Your task to perform on an android device: open app "Adobe Acrobat Reader: Edit PDF" (install if not already installed) Image 0: 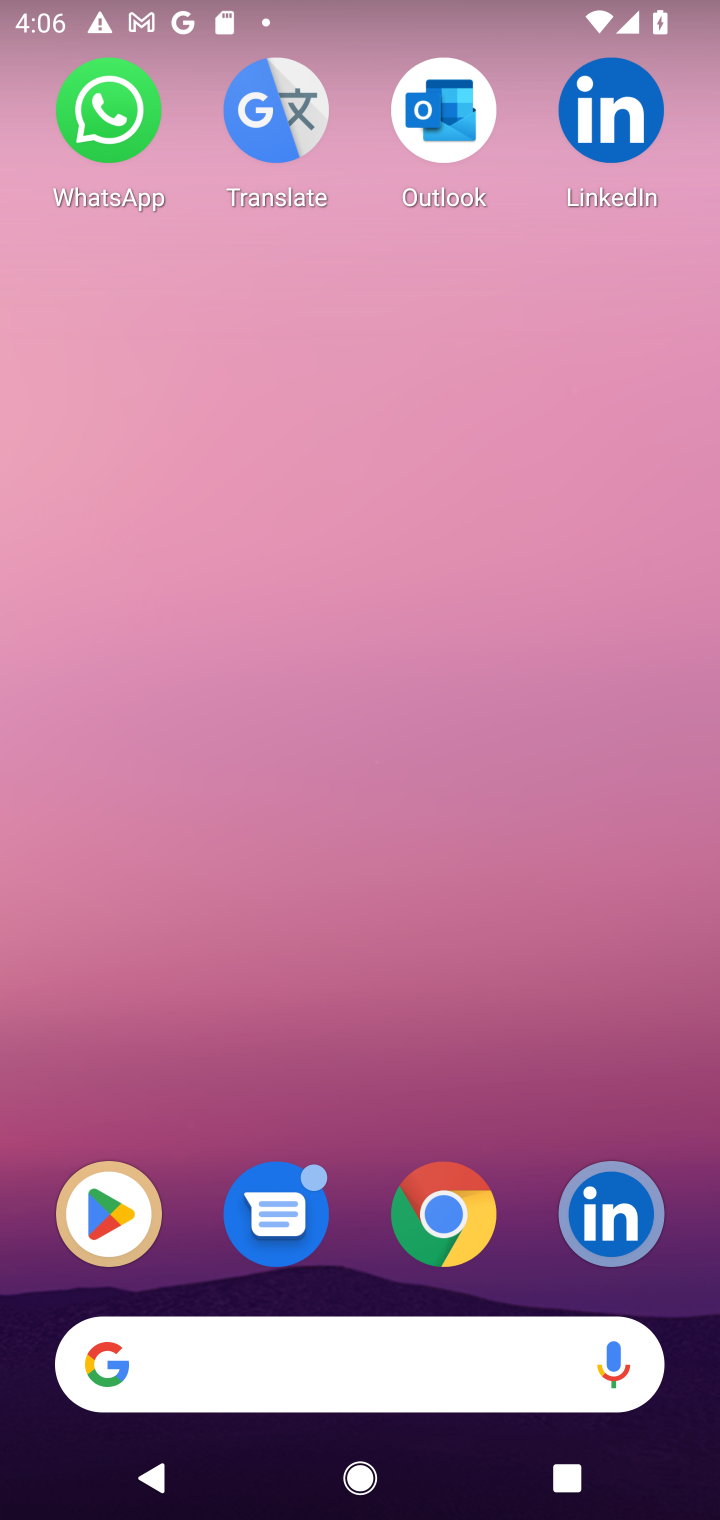
Step 0: click (140, 1224)
Your task to perform on an android device: open app "Adobe Acrobat Reader: Edit PDF" (install if not already installed) Image 1: 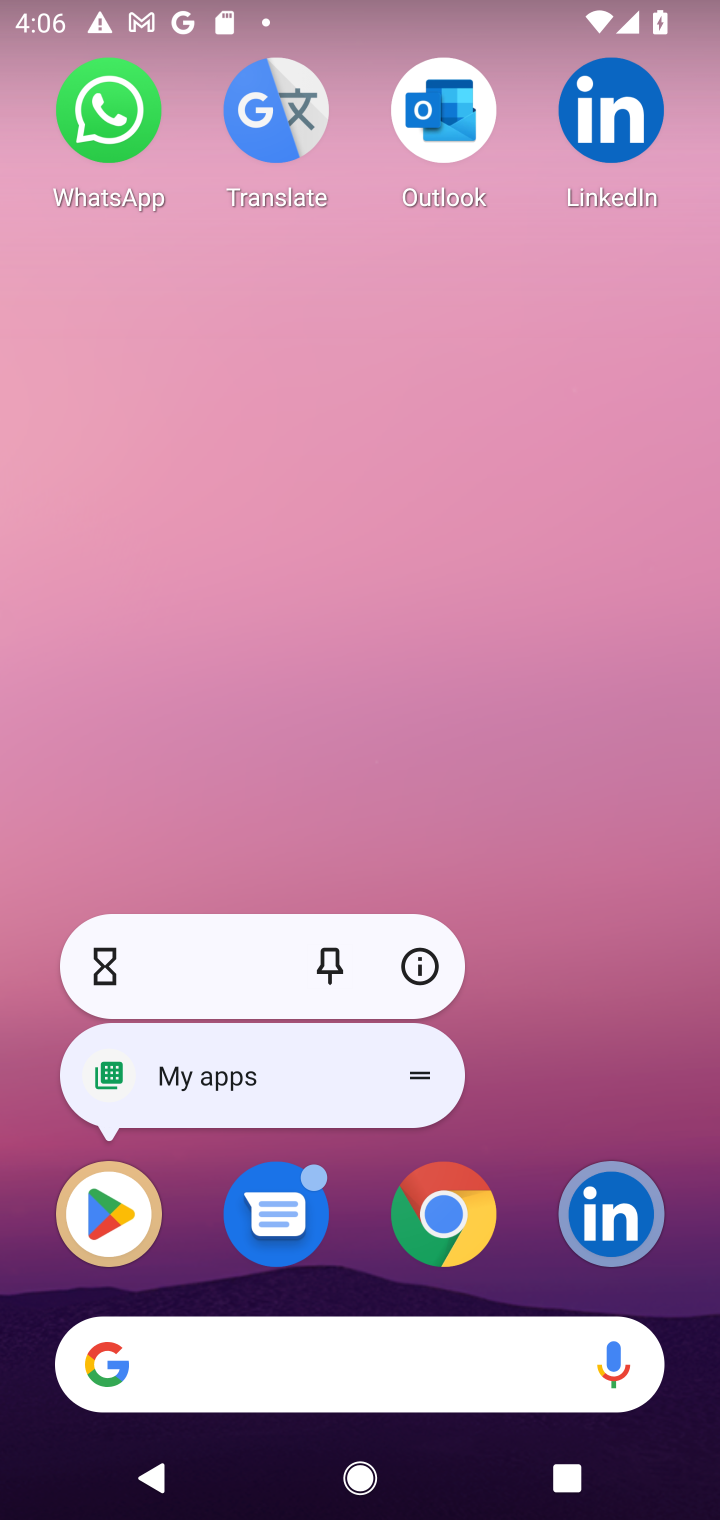
Step 1: click (136, 1222)
Your task to perform on an android device: open app "Adobe Acrobat Reader: Edit PDF" (install if not already installed) Image 2: 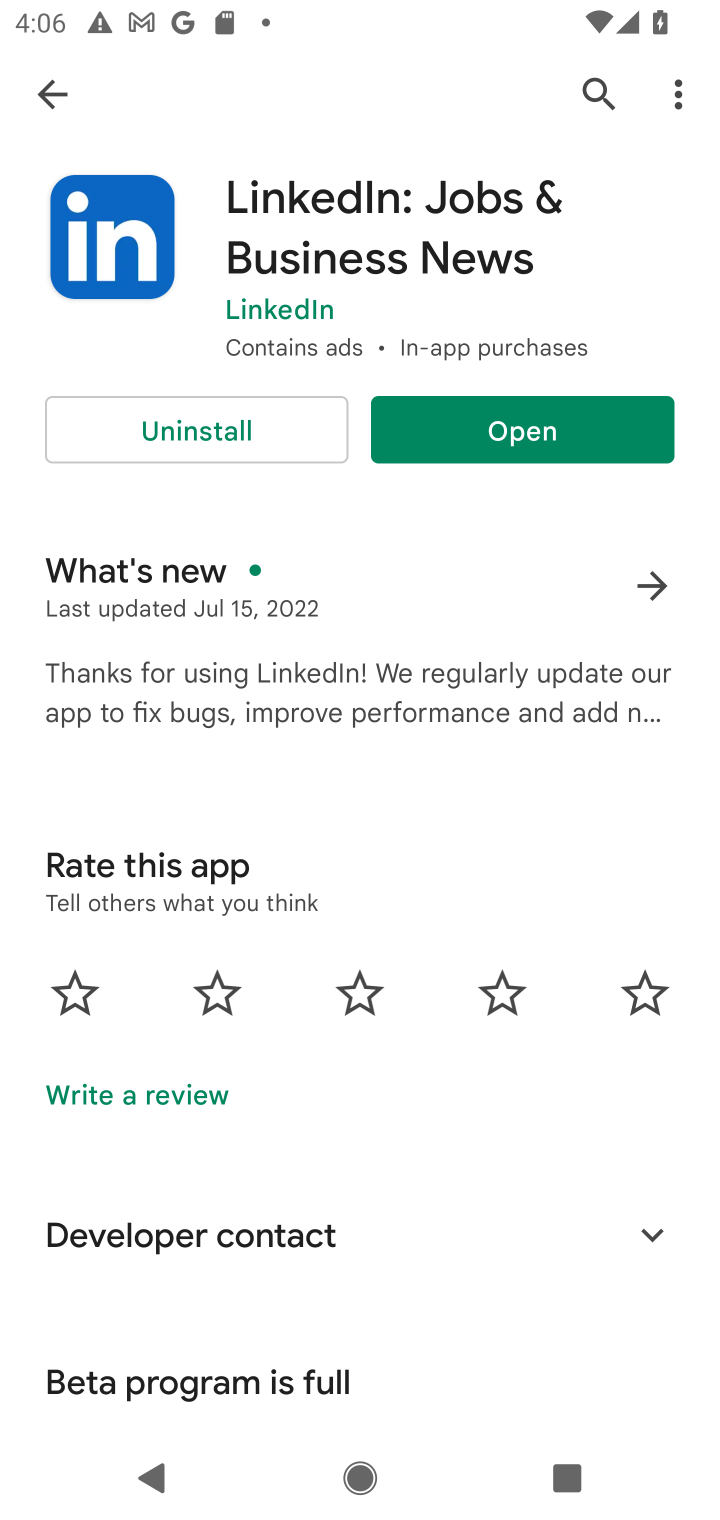
Step 2: click (60, 72)
Your task to perform on an android device: open app "Adobe Acrobat Reader: Edit PDF" (install if not already installed) Image 3: 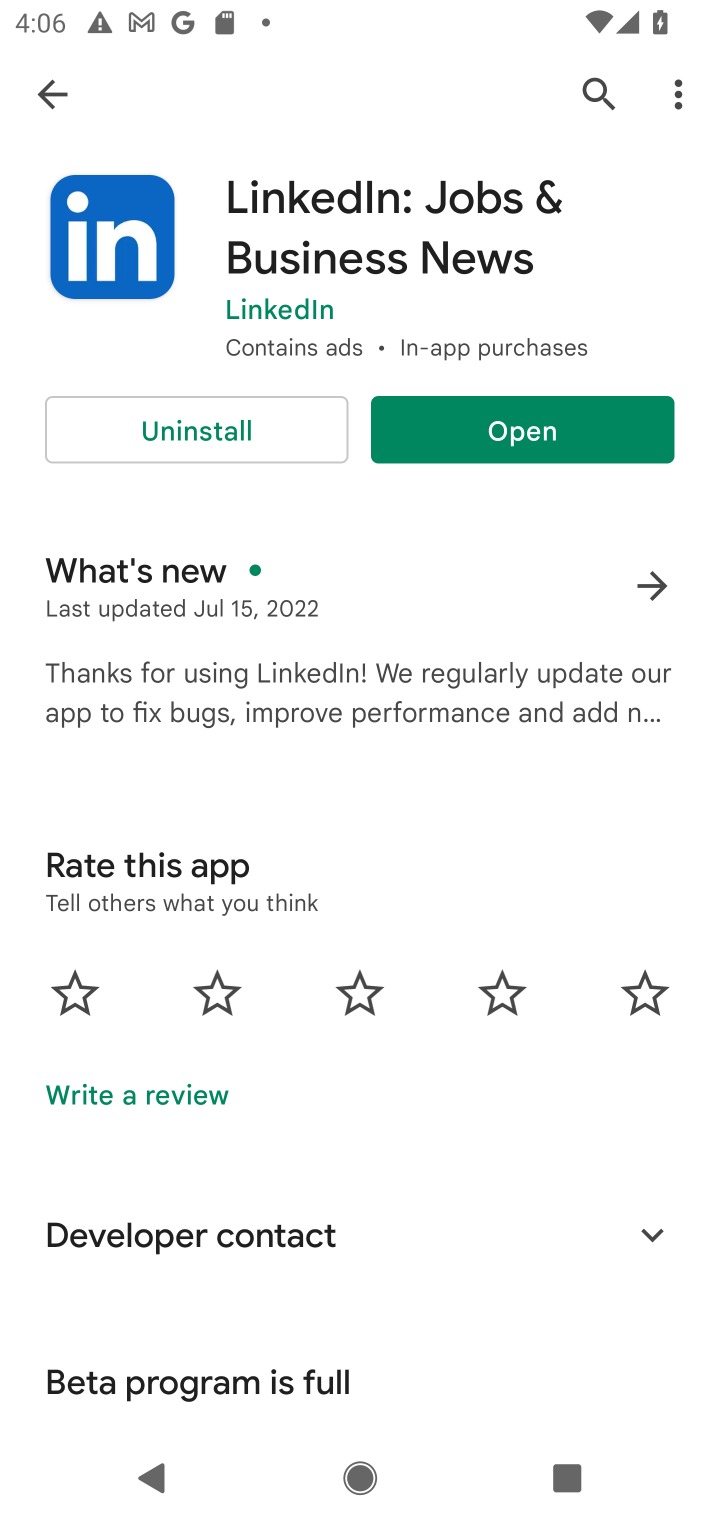
Step 3: click (40, 89)
Your task to perform on an android device: open app "Adobe Acrobat Reader: Edit PDF" (install if not already installed) Image 4: 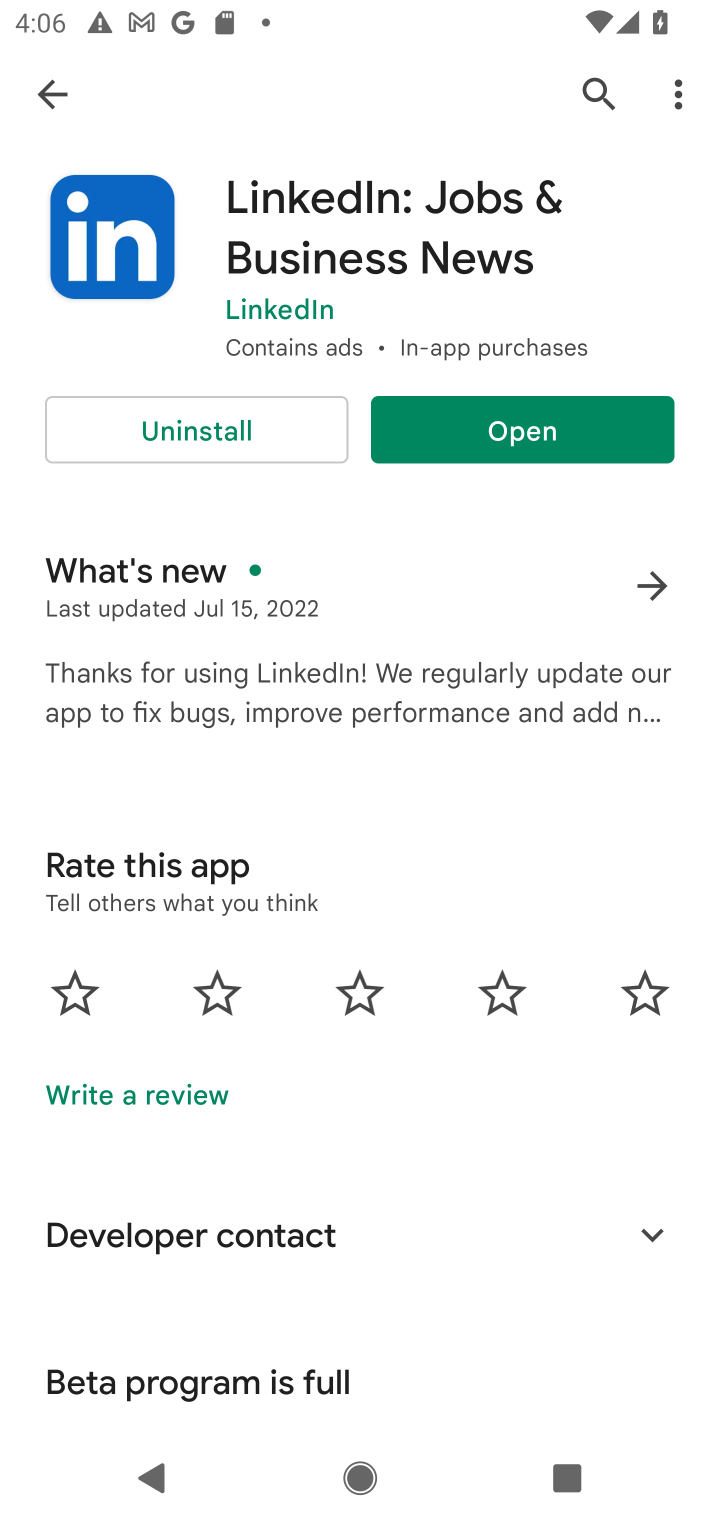
Step 4: click (28, 93)
Your task to perform on an android device: open app "Adobe Acrobat Reader: Edit PDF" (install if not already installed) Image 5: 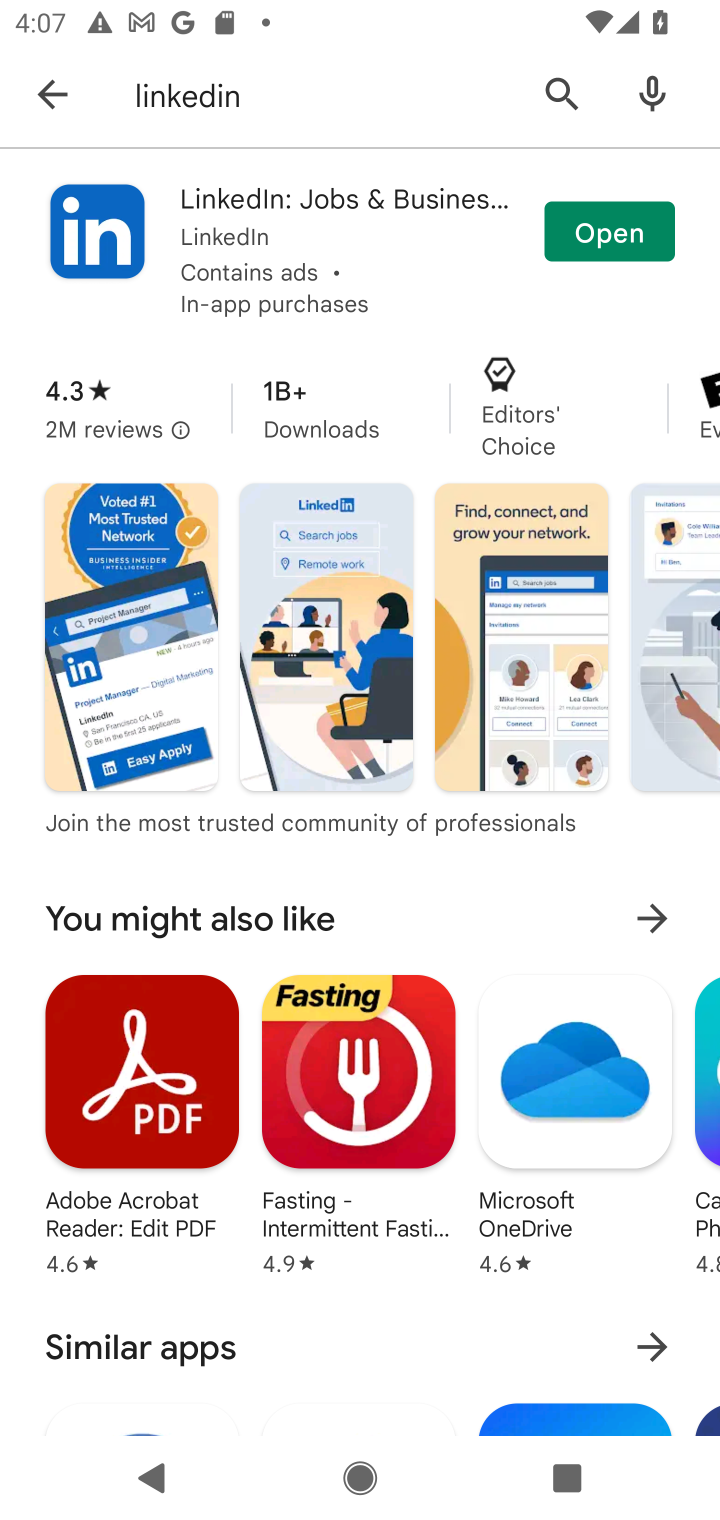
Step 5: click (232, 115)
Your task to perform on an android device: open app "Adobe Acrobat Reader: Edit PDF" (install if not already installed) Image 6: 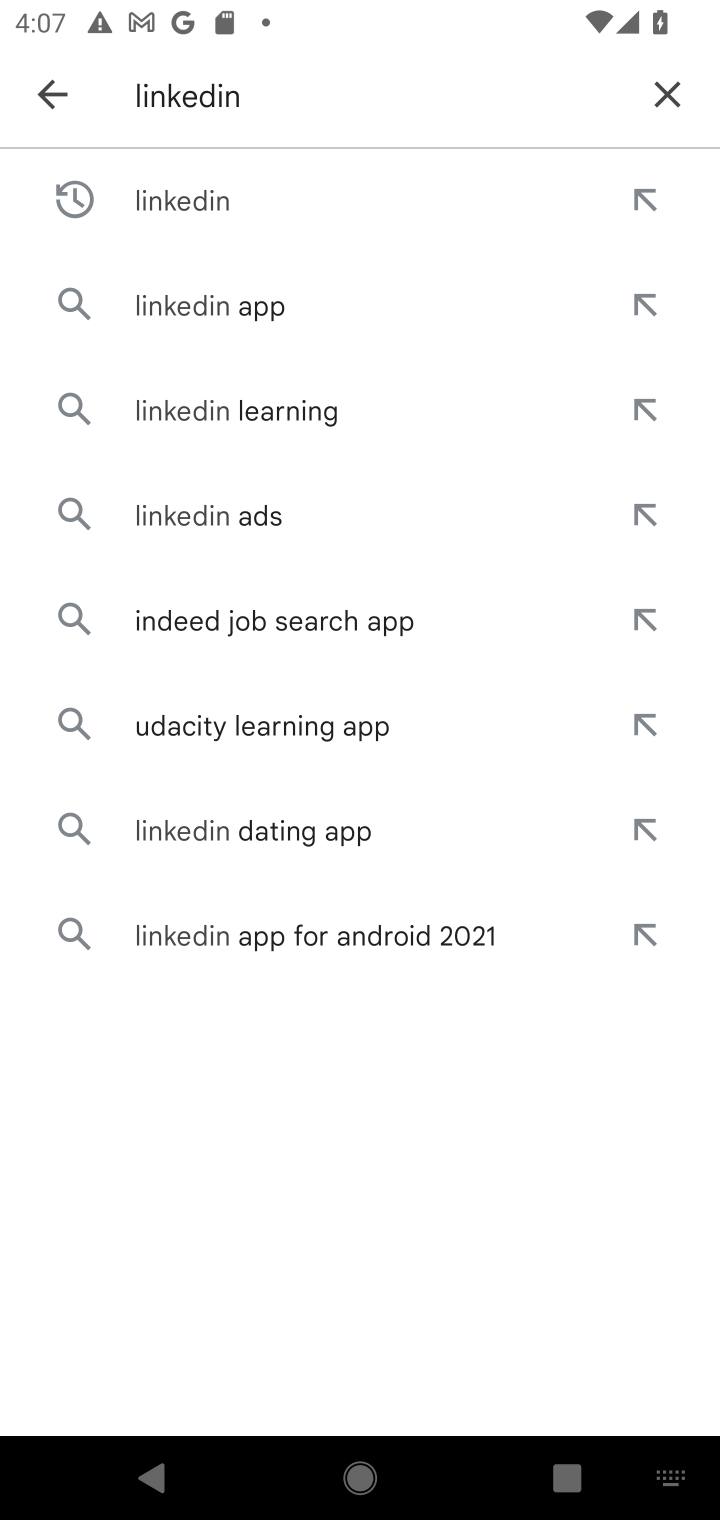
Step 6: click (677, 94)
Your task to perform on an android device: open app "Adobe Acrobat Reader: Edit PDF" (install if not already installed) Image 7: 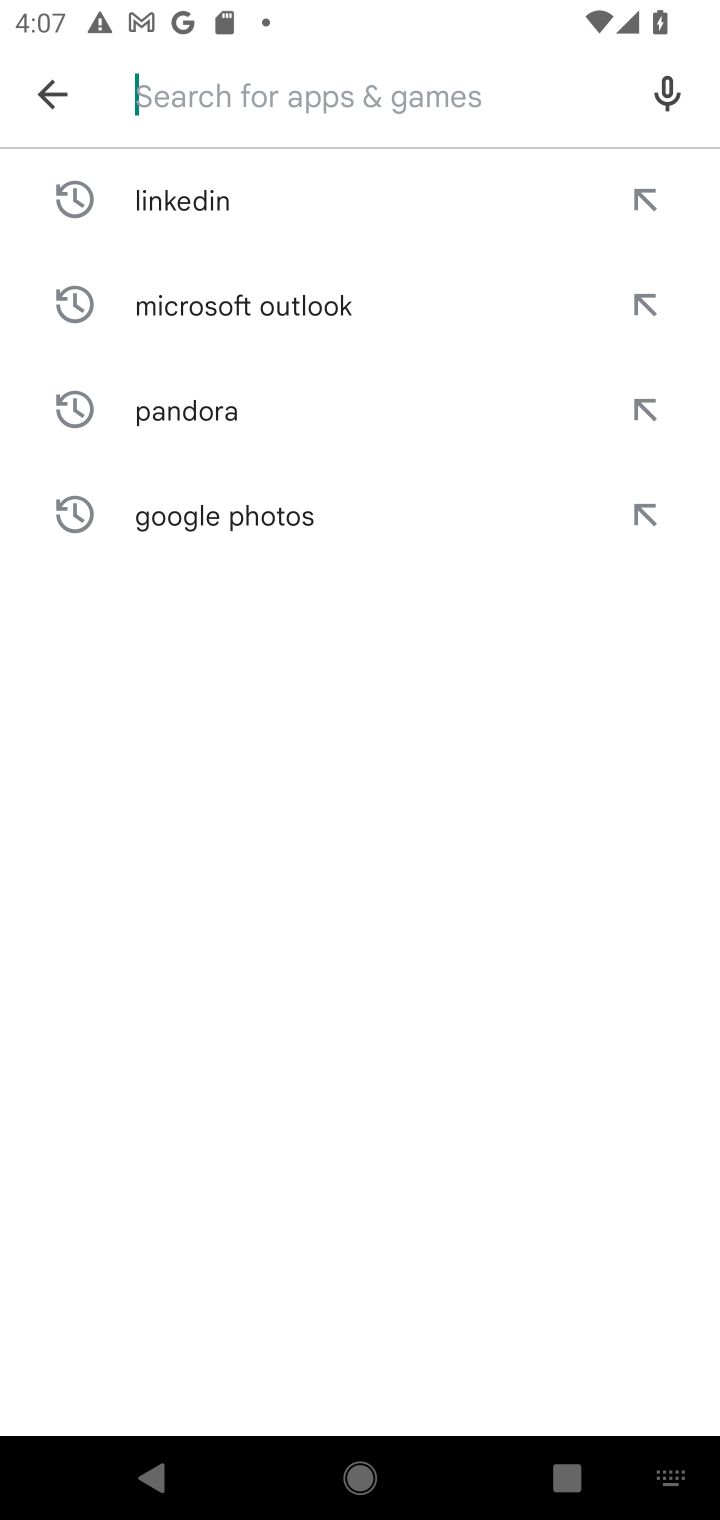
Step 7: type "Adobe Acrobat Reader"
Your task to perform on an android device: open app "Adobe Acrobat Reader: Edit PDF" (install if not already installed) Image 8: 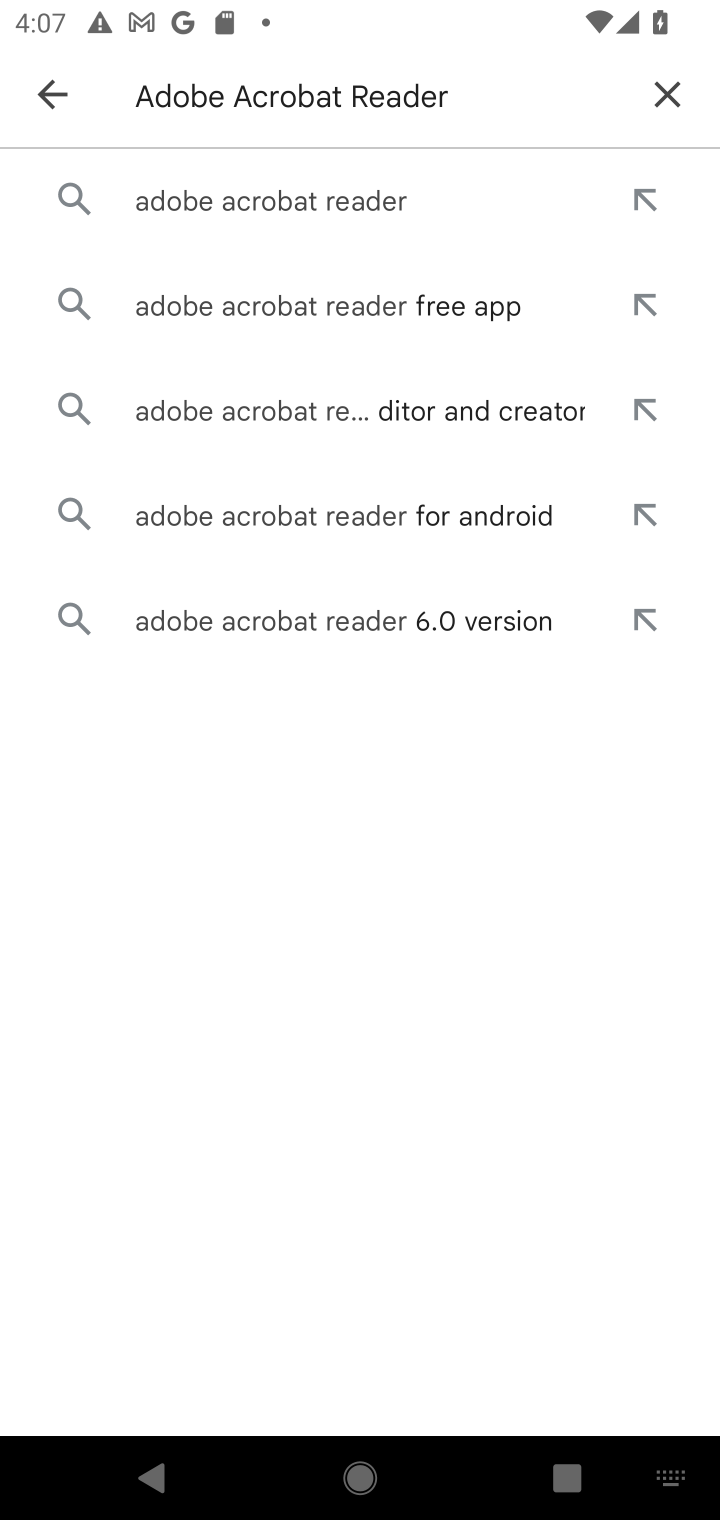
Step 8: click (285, 214)
Your task to perform on an android device: open app "Adobe Acrobat Reader: Edit PDF" (install if not already installed) Image 9: 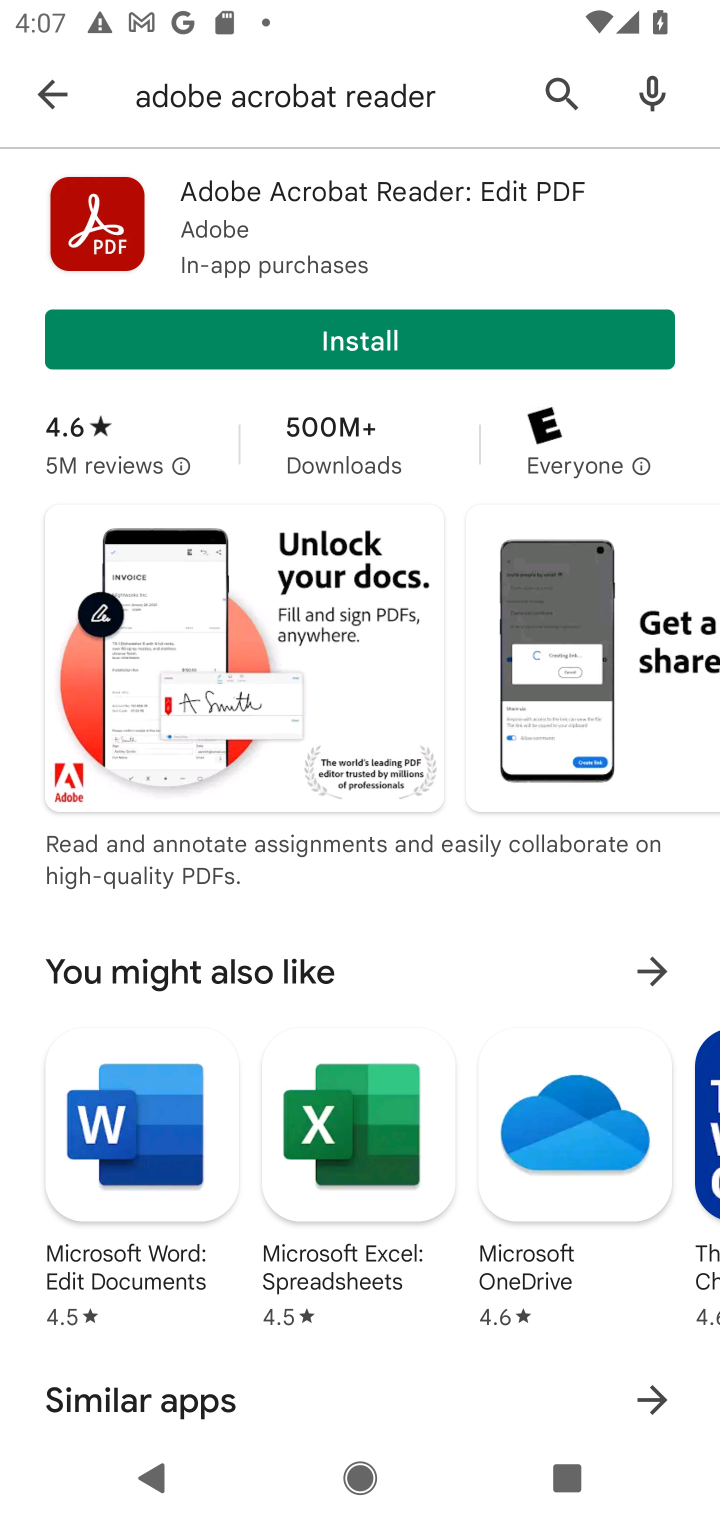
Step 9: click (346, 342)
Your task to perform on an android device: open app "Adobe Acrobat Reader: Edit PDF" (install if not already installed) Image 10: 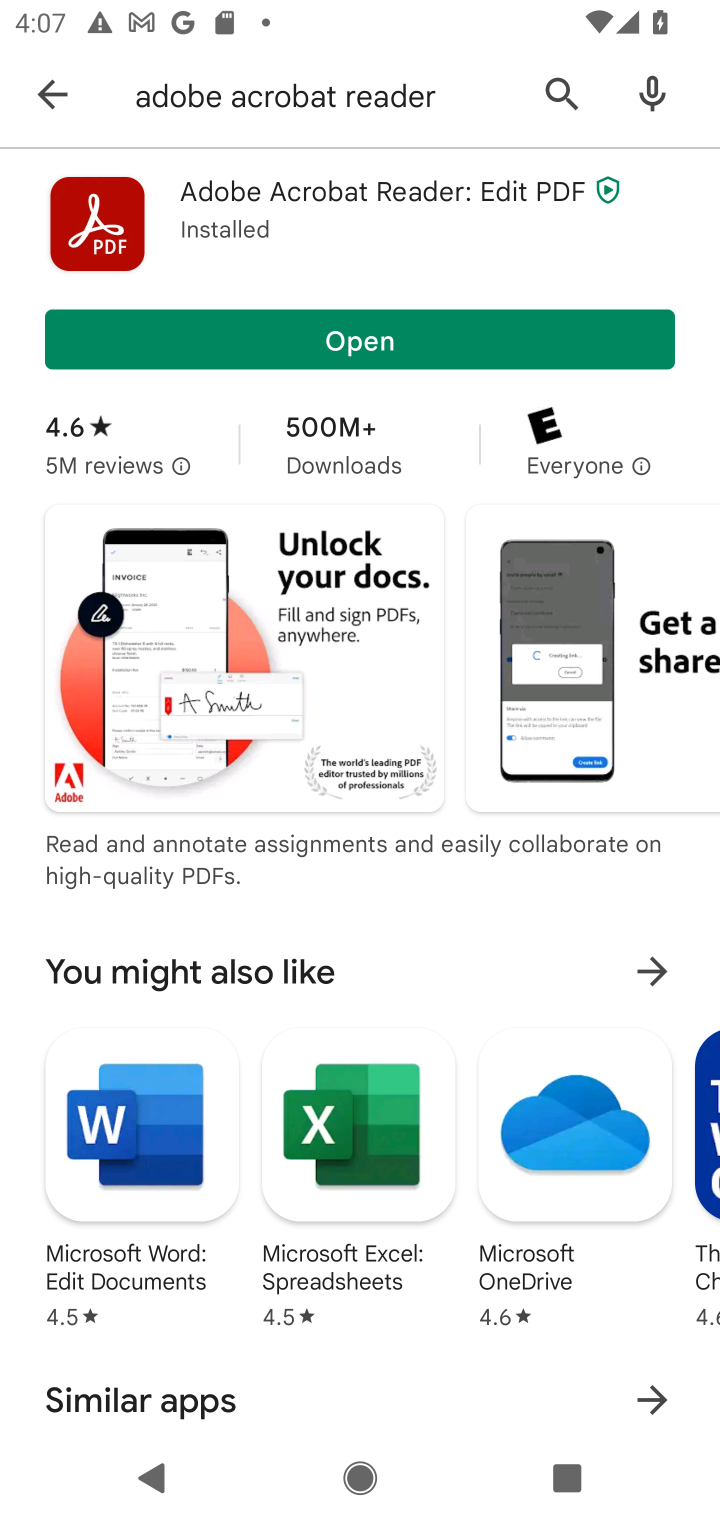
Step 10: click (332, 351)
Your task to perform on an android device: open app "Adobe Acrobat Reader: Edit PDF" (install if not already installed) Image 11: 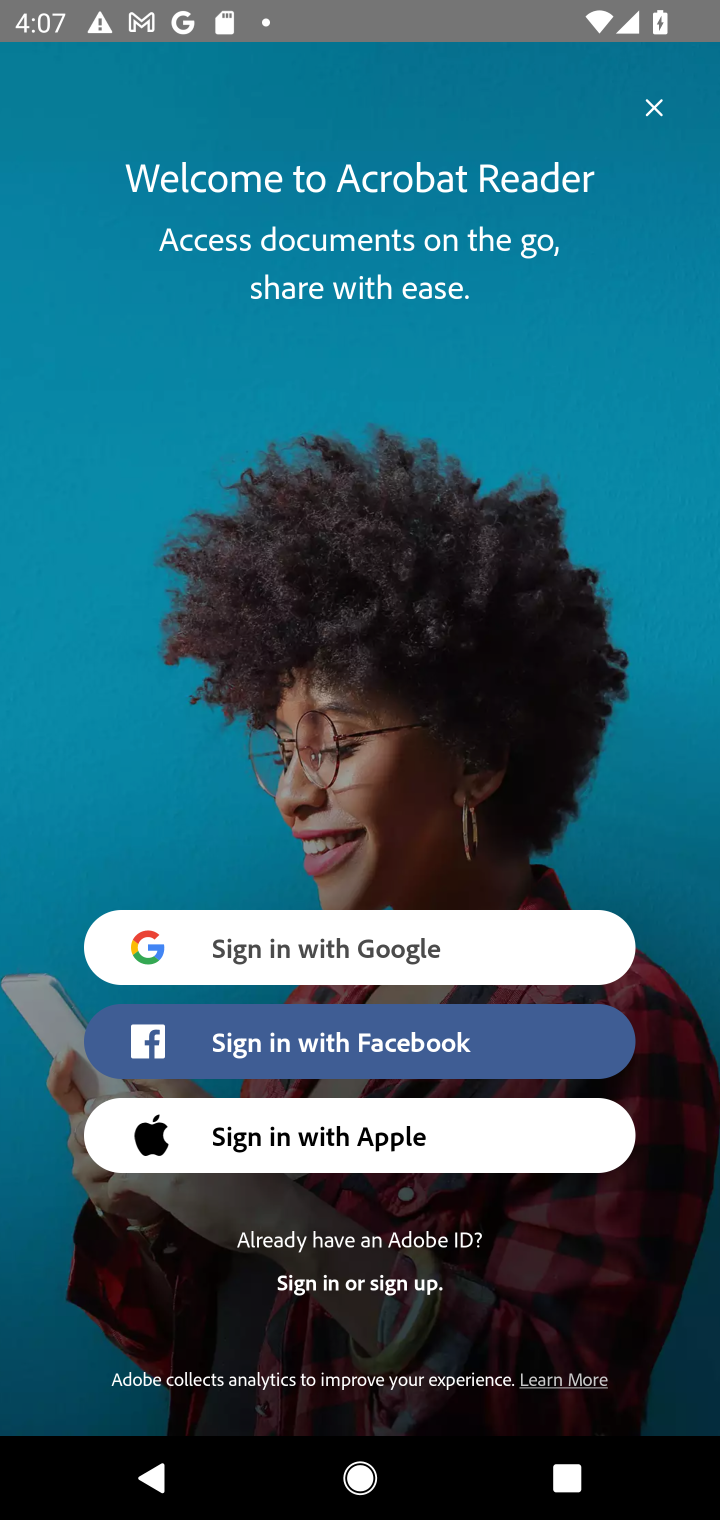
Step 11: click (433, 946)
Your task to perform on an android device: open app "Adobe Acrobat Reader: Edit PDF" (install if not already installed) Image 12: 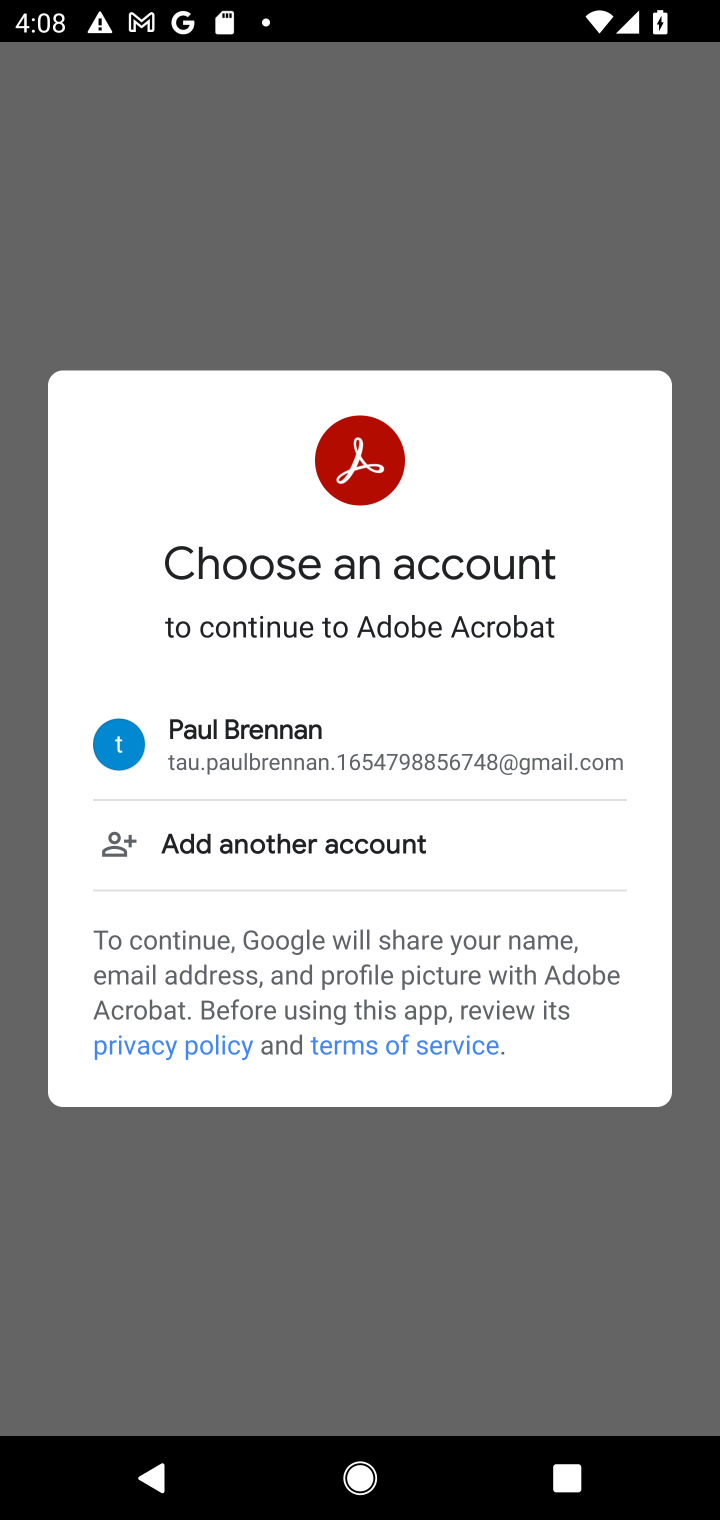
Step 12: click (328, 757)
Your task to perform on an android device: open app "Adobe Acrobat Reader: Edit PDF" (install if not already installed) Image 13: 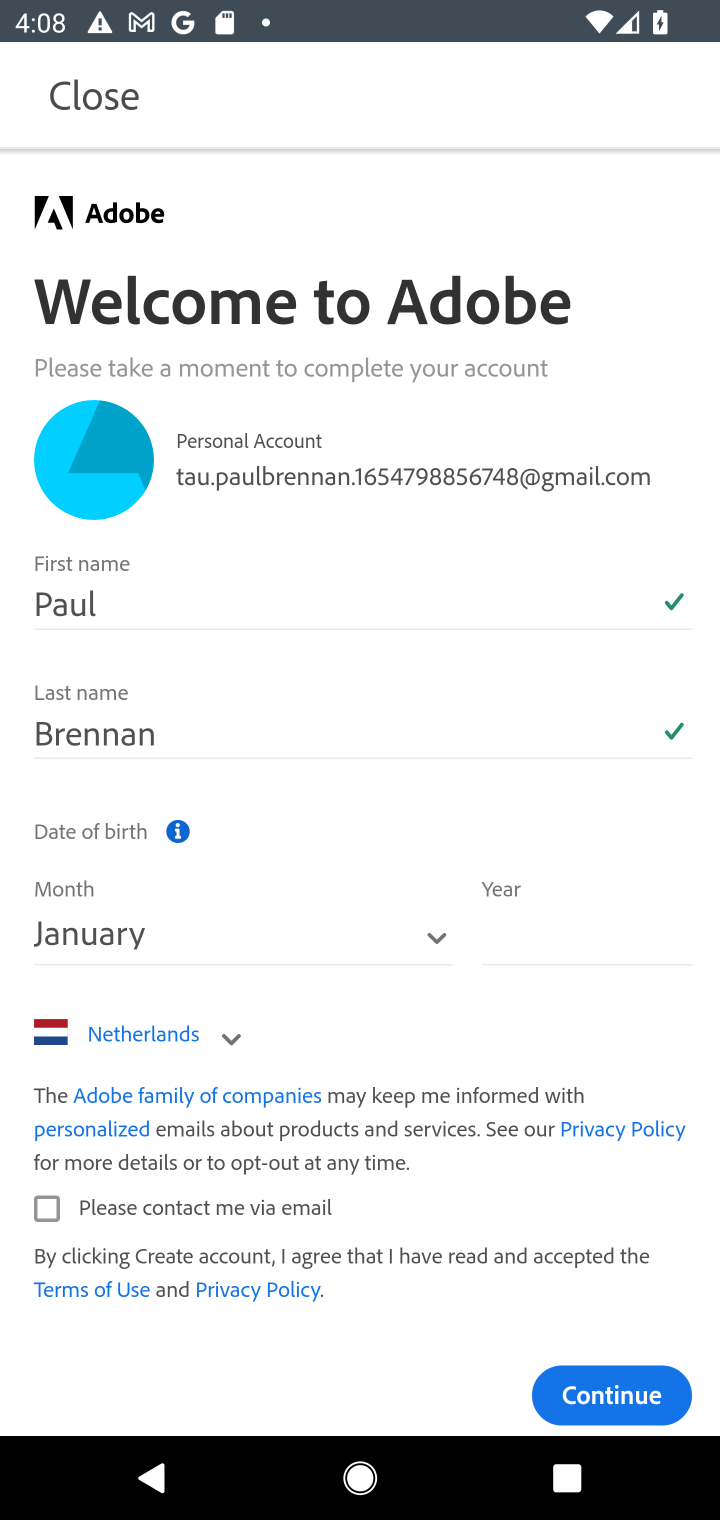
Step 13: click (606, 1412)
Your task to perform on an android device: open app "Adobe Acrobat Reader: Edit PDF" (install if not already installed) Image 14: 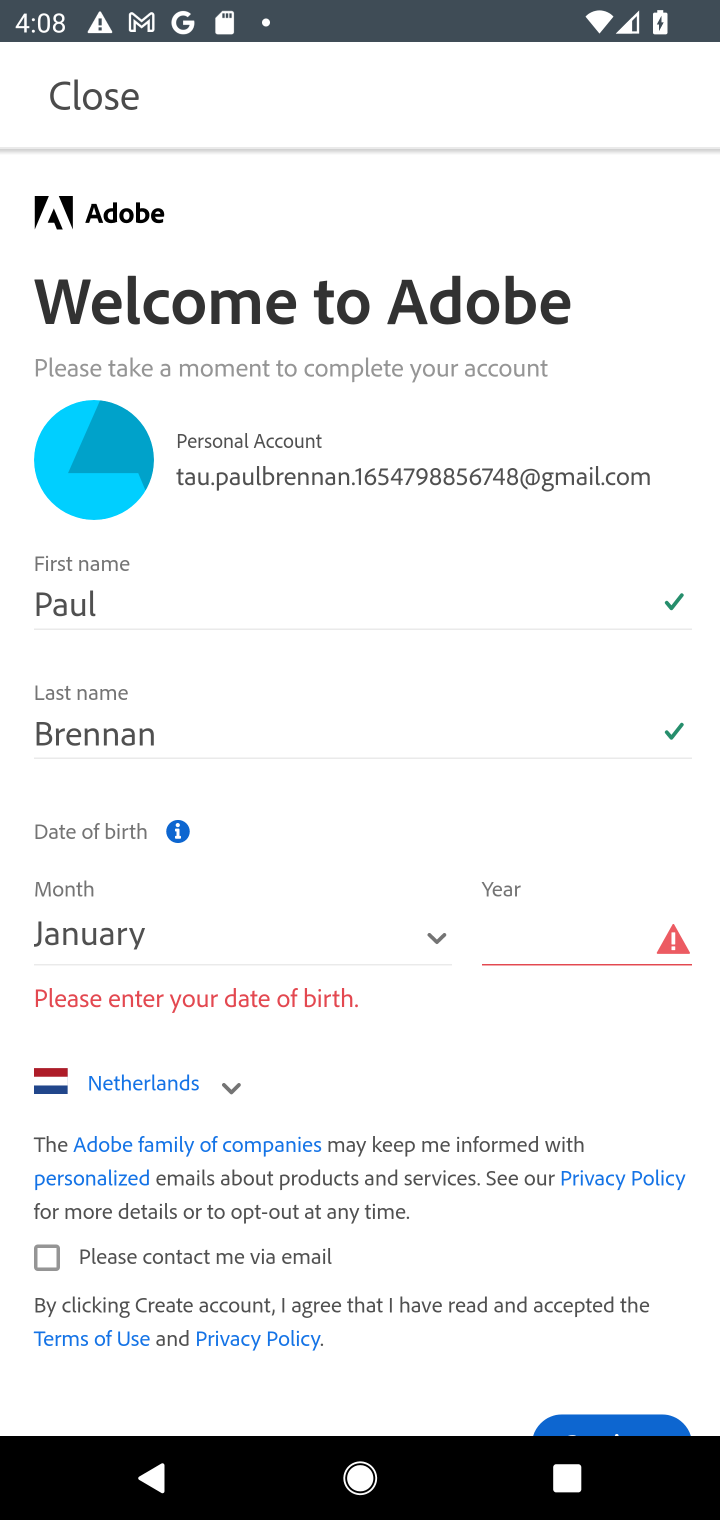
Step 14: click (618, 950)
Your task to perform on an android device: open app "Adobe Acrobat Reader: Edit PDF" (install if not already installed) Image 15: 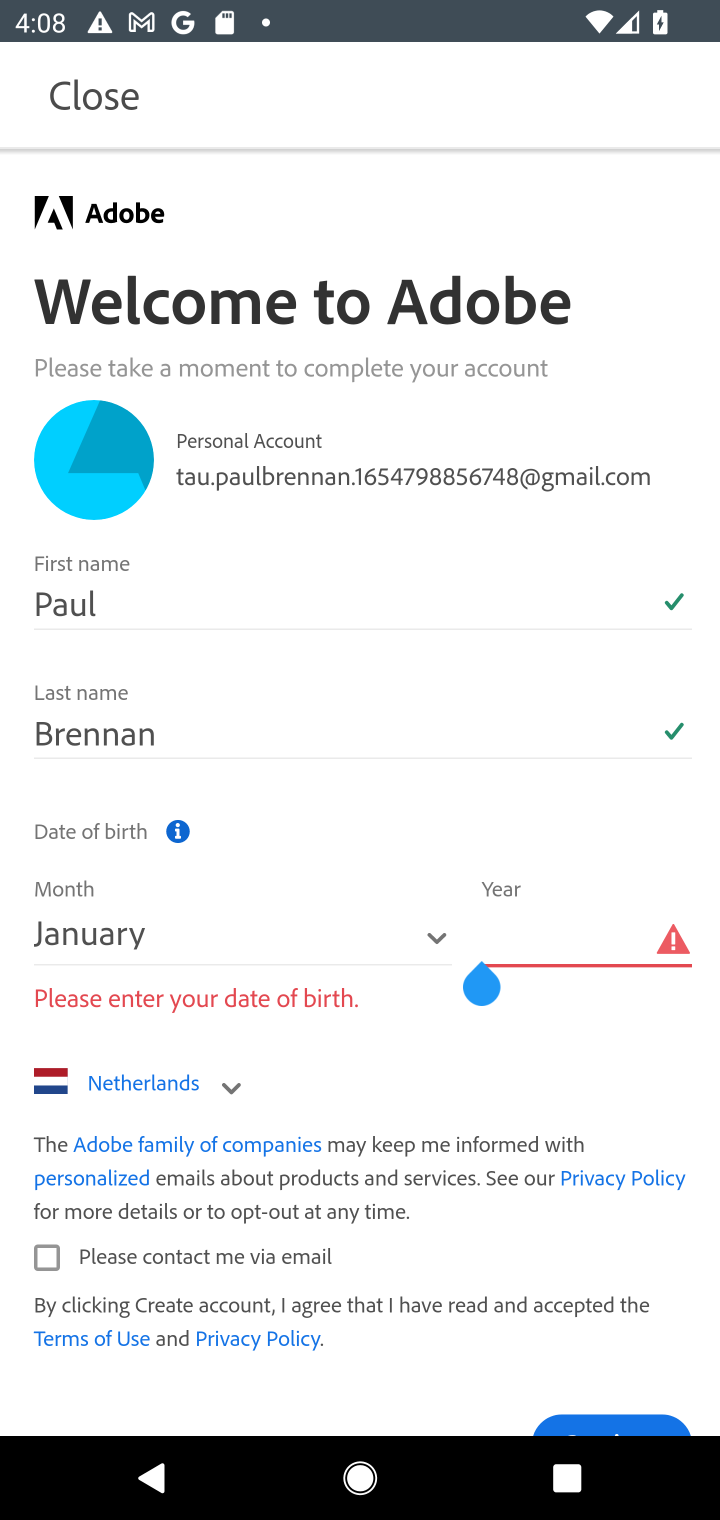
Step 15: type "1998"
Your task to perform on an android device: open app "Adobe Acrobat Reader: Edit PDF" (install if not already installed) Image 16: 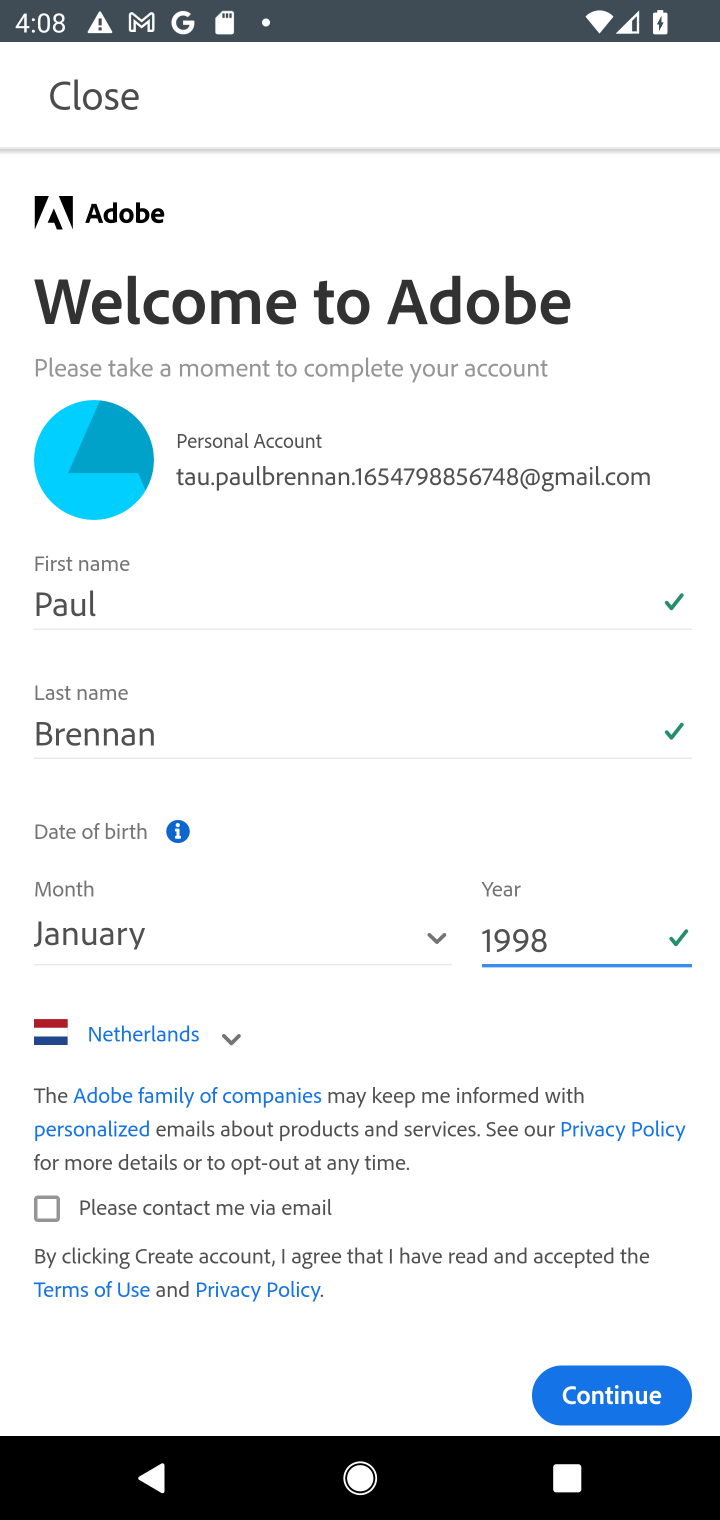
Step 16: click (61, 1221)
Your task to perform on an android device: open app "Adobe Acrobat Reader: Edit PDF" (install if not already installed) Image 17: 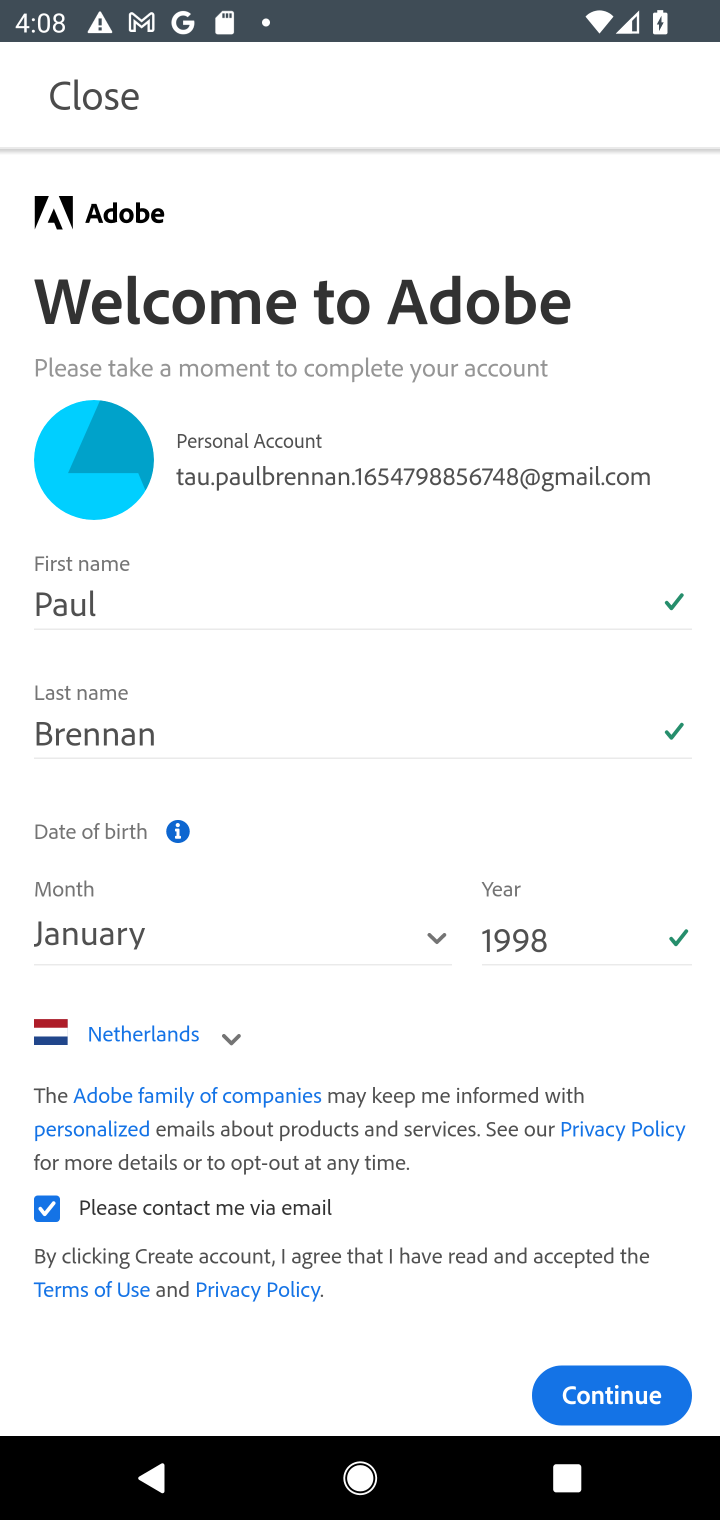
Step 17: click (589, 1389)
Your task to perform on an android device: open app "Adobe Acrobat Reader: Edit PDF" (install if not already installed) Image 18: 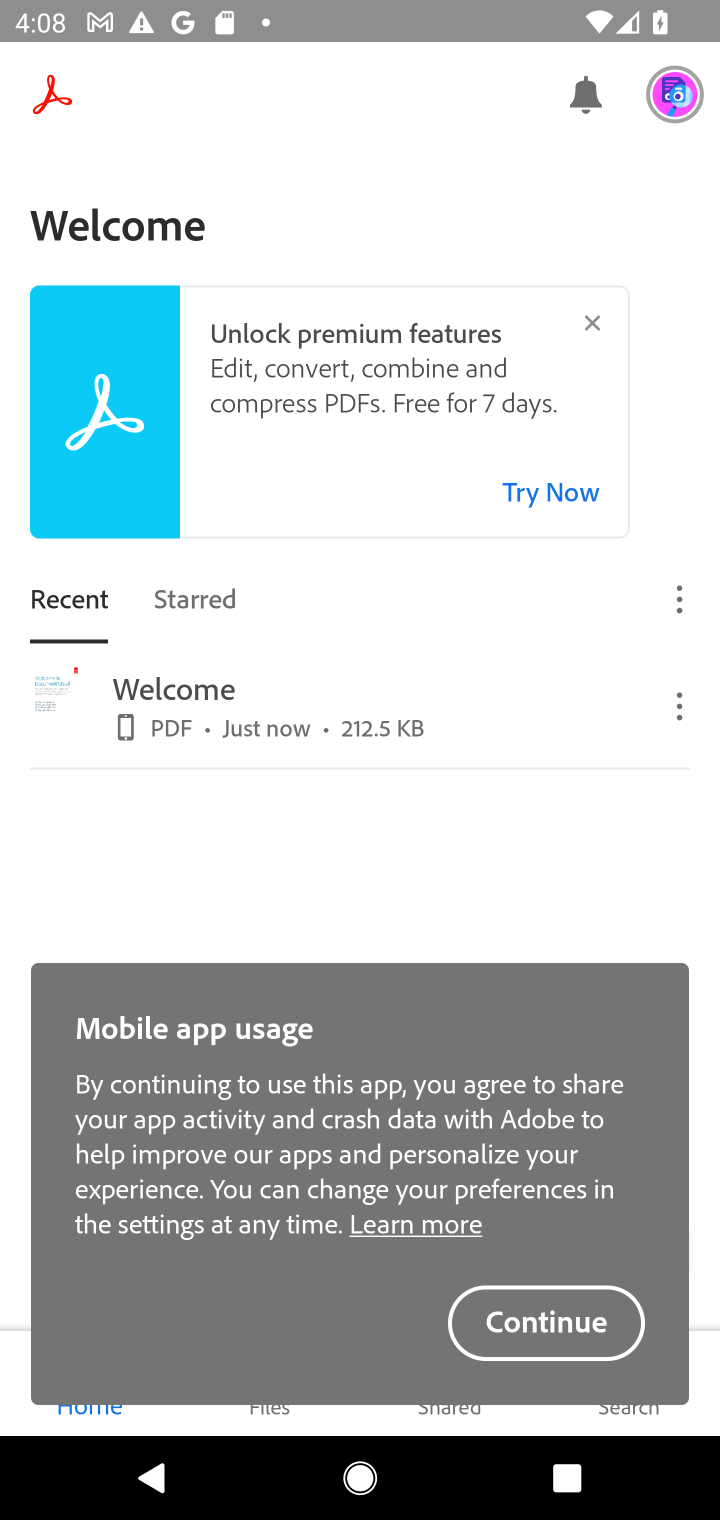
Step 18: task complete